Your task to perform on an android device: Open a new incognito window in Chrome Image 0: 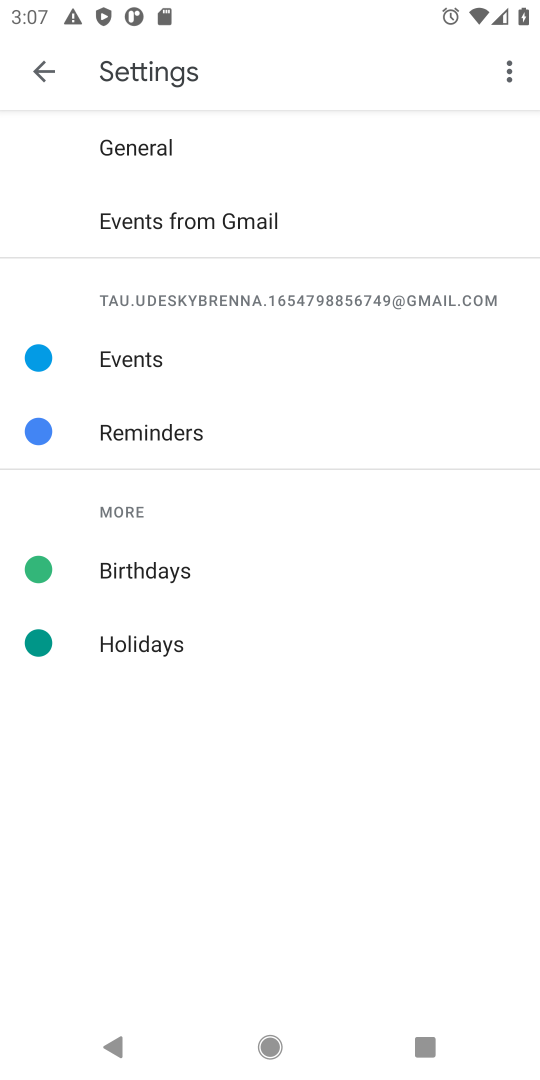
Step 0: press home button
Your task to perform on an android device: Open a new incognito window in Chrome Image 1: 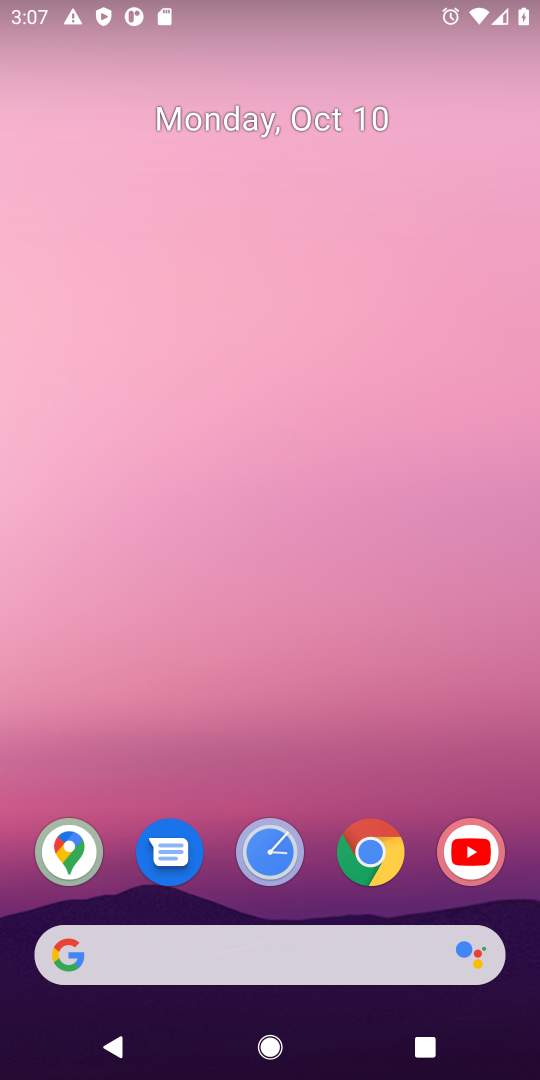
Step 1: click (358, 855)
Your task to perform on an android device: Open a new incognito window in Chrome Image 2: 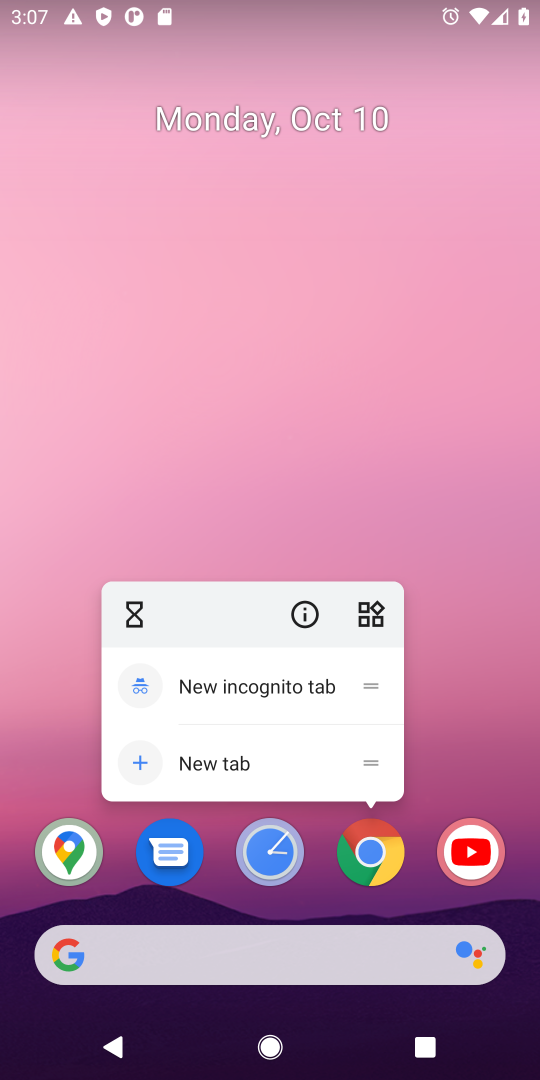
Step 2: click (374, 854)
Your task to perform on an android device: Open a new incognito window in Chrome Image 3: 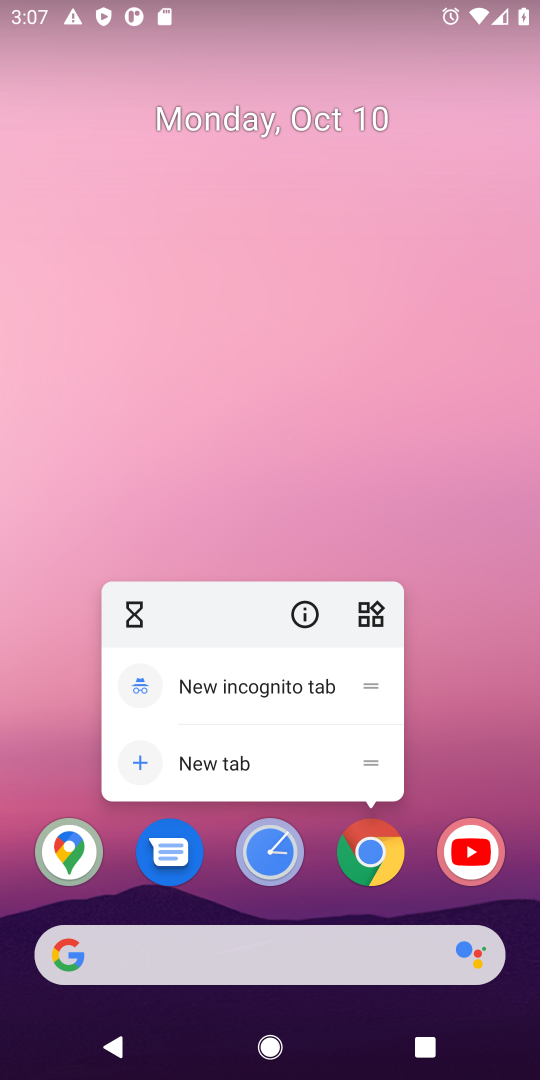
Step 3: click (361, 845)
Your task to perform on an android device: Open a new incognito window in Chrome Image 4: 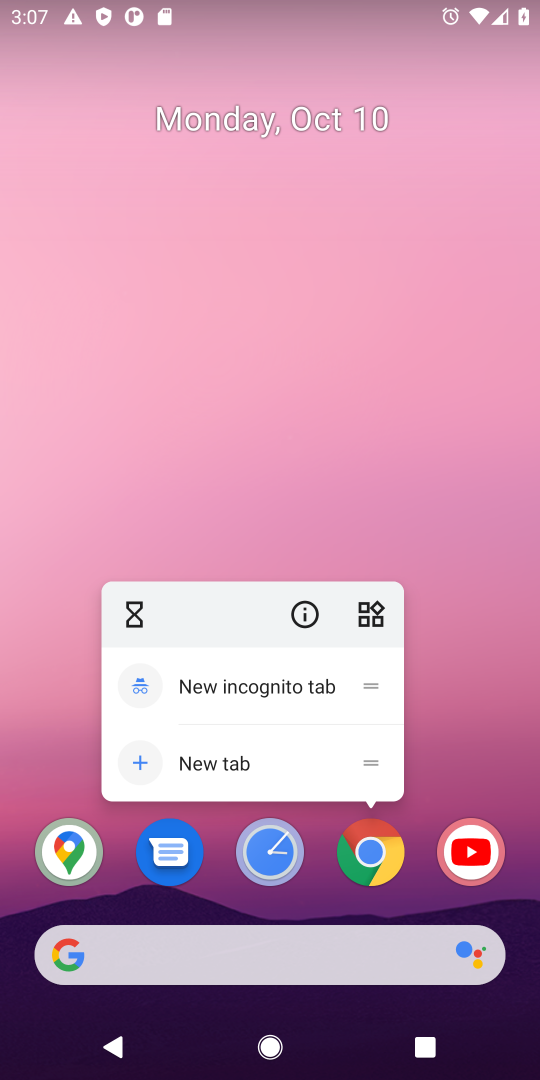
Step 4: click (361, 845)
Your task to perform on an android device: Open a new incognito window in Chrome Image 5: 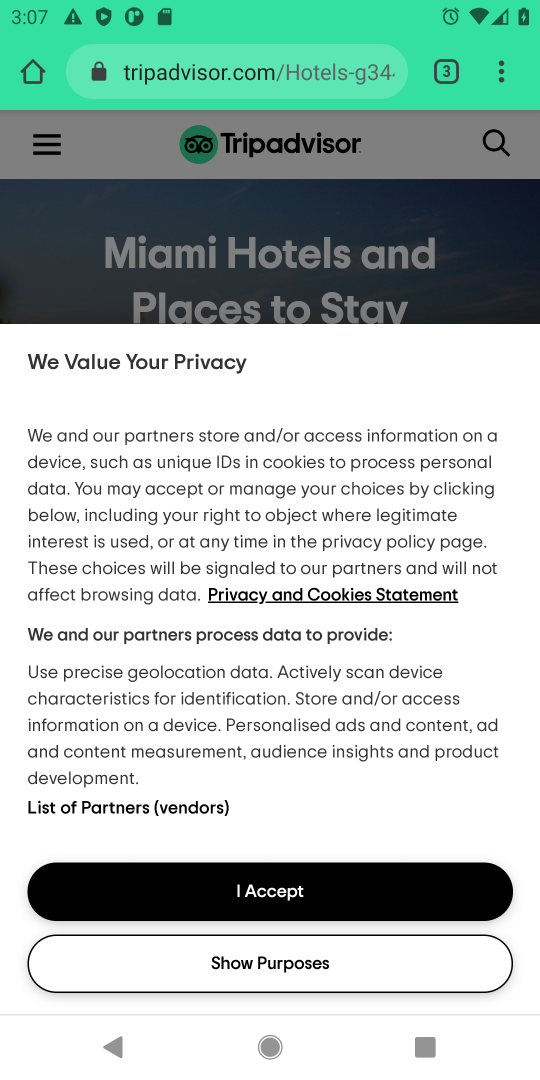
Step 5: click (493, 80)
Your task to perform on an android device: Open a new incognito window in Chrome Image 6: 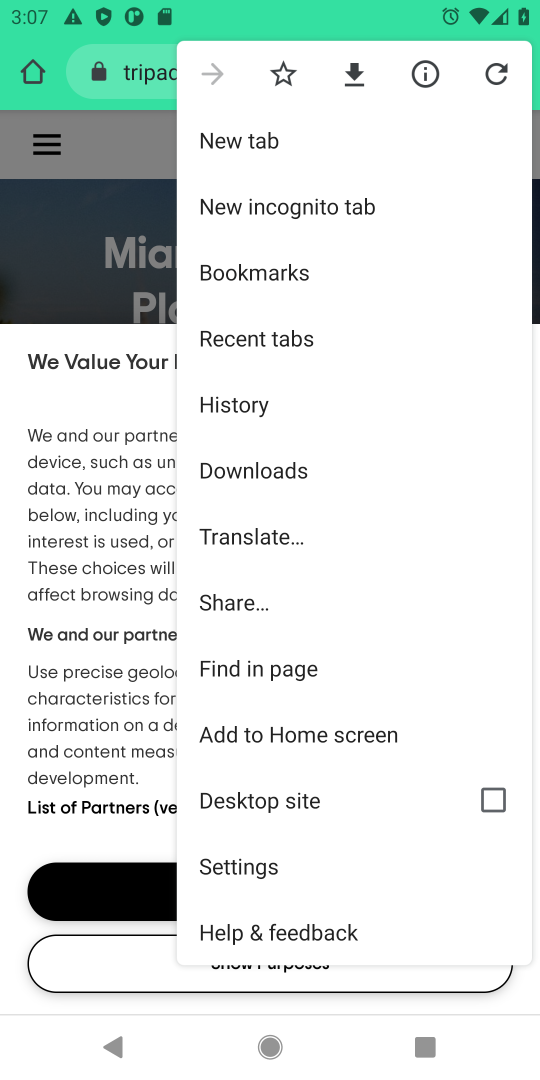
Step 6: click (279, 219)
Your task to perform on an android device: Open a new incognito window in Chrome Image 7: 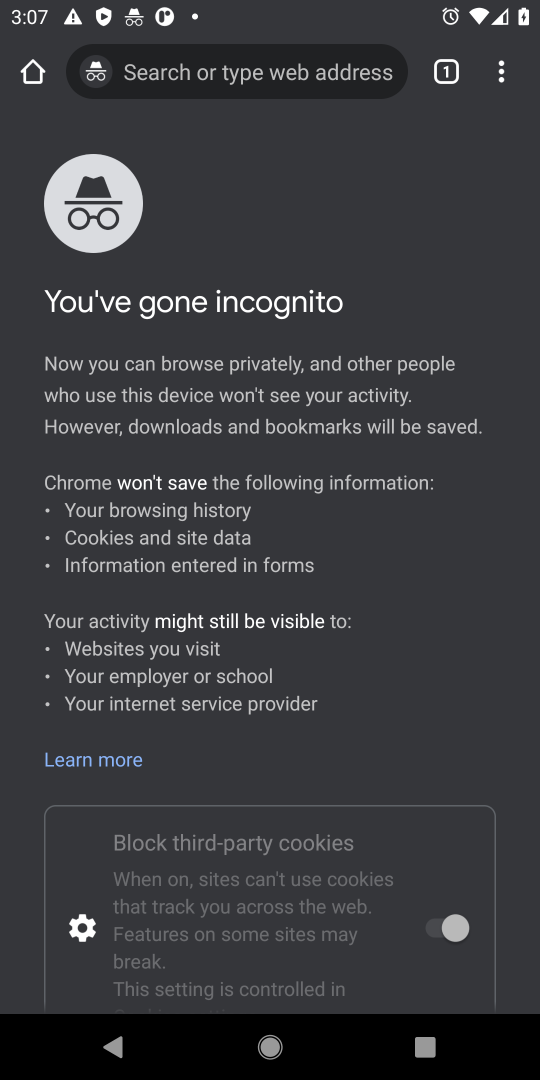
Step 7: task complete